Your task to perform on an android device: What's the weather? Image 0: 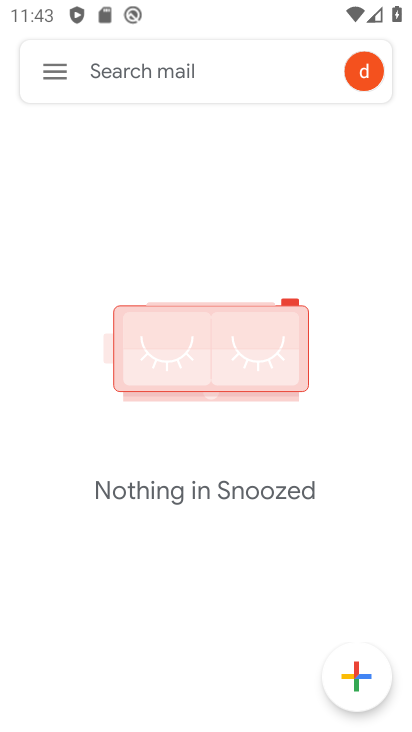
Step 0: press home button
Your task to perform on an android device: What's the weather? Image 1: 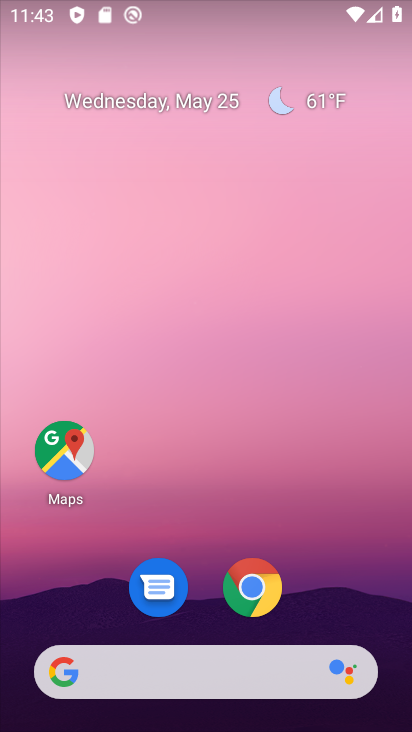
Step 1: click (298, 109)
Your task to perform on an android device: What's the weather? Image 2: 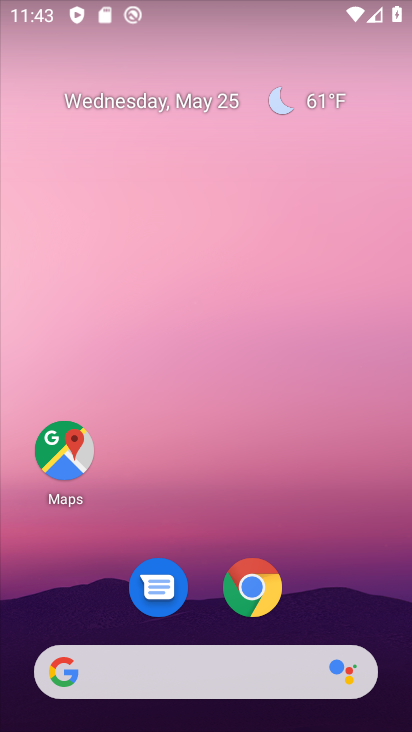
Step 2: click (297, 112)
Your task to perform on an android device: What's the weather? Image 3: 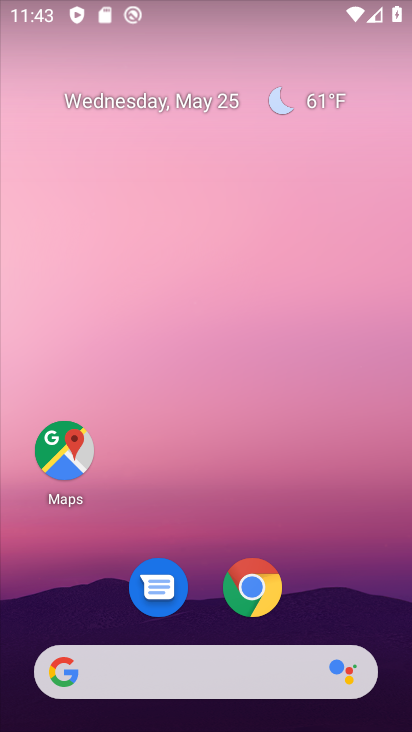
Step 3: click (302, 98)
Your task to perform on an android device: What's the weather? Image 4: 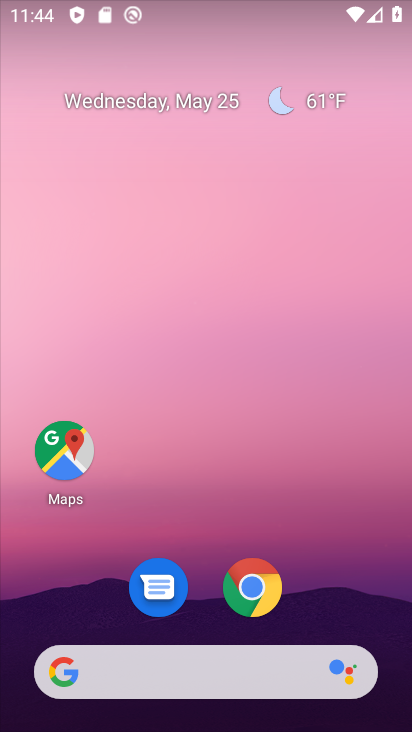
Step 4: click (285, 108)
Your task to perform on an android device: What's the weather? Image 5: 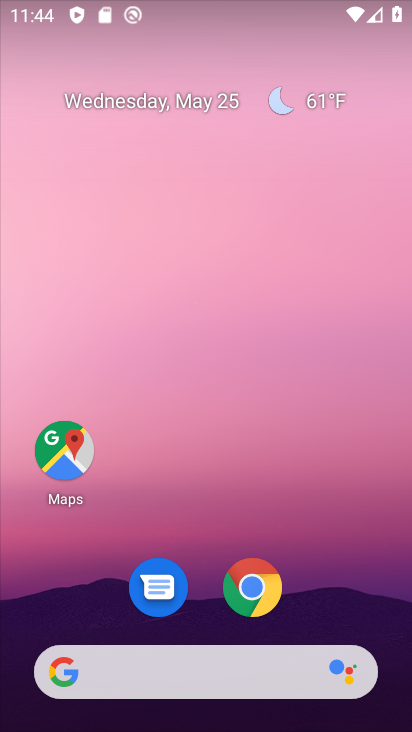
Step 5: click (328, 110)
Your task to perform on an android device: What's the weather? Image 6: 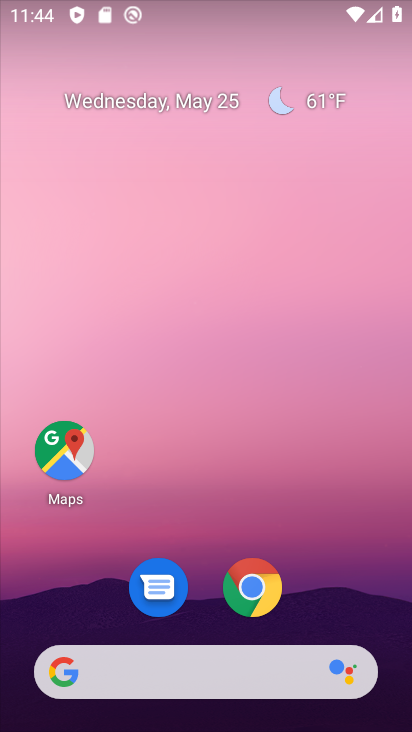
Step 6: click (335, 107)
Your task to perform on an android device: What's the weather? Image 7: 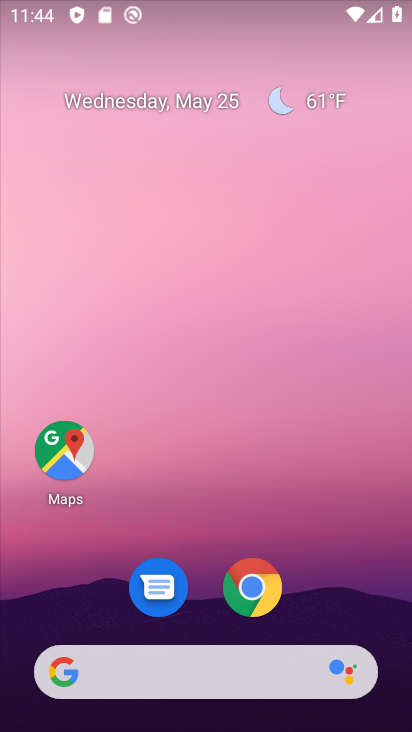
Step 7: click (335, 107)
Your task to perform on an android device: What's the weather? Image 8: 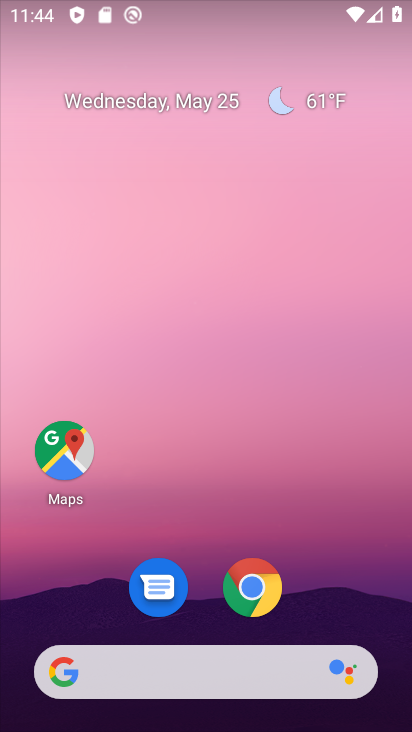
Step 8: click (284, 117)
Your task to perform on an android device: What's the weather? Image 9: 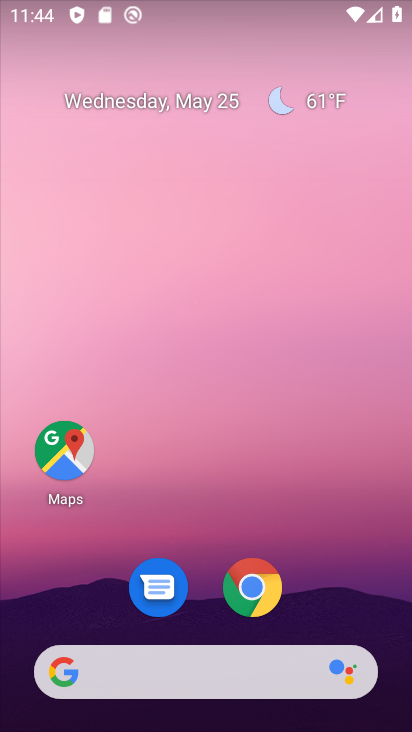
Step 9: drag from (28, 313) to (392, 361)
Your task to perform on an android device: What's the weather? Image 10: 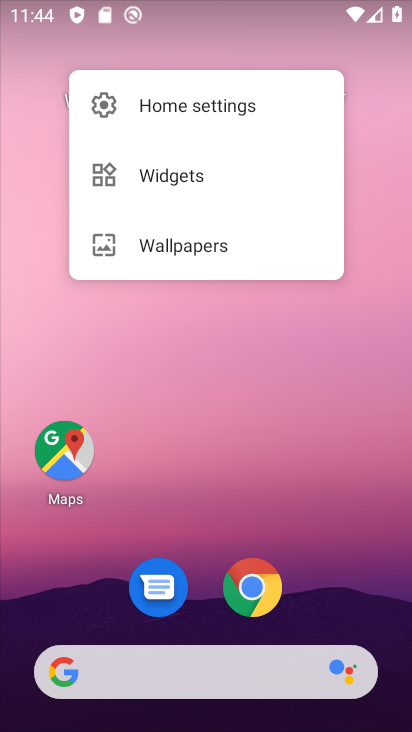
Step 10: drag from (19, 349) to (304, 392)
Your task to perform on an android device: What's the weather? Image 11: 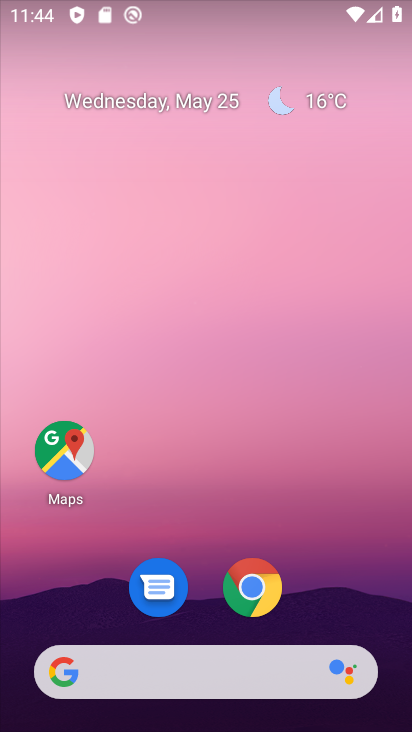
Step 11: click (277, 89)
Your task to perform on an android device: What's the weather? Image 12: 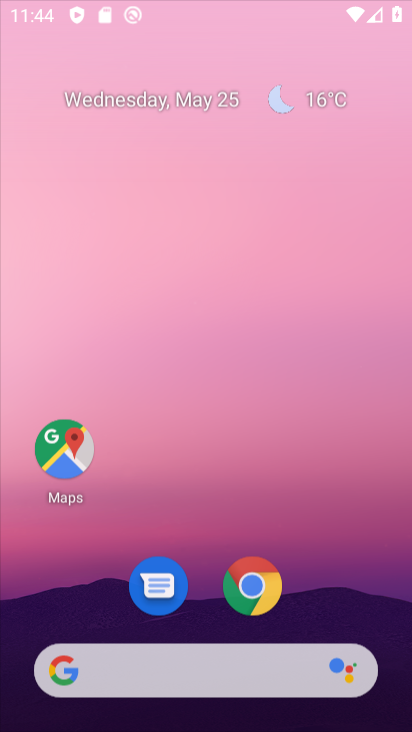
Step 12: click (277, 90)
Your task to perform on an android device: What's the weather? Image 13: 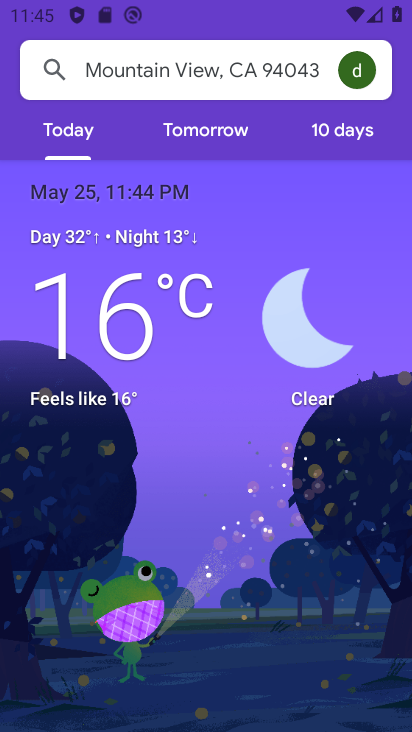
Step 13: task complete